Your task to perform on an android device: turn on airplane mode Image 0: 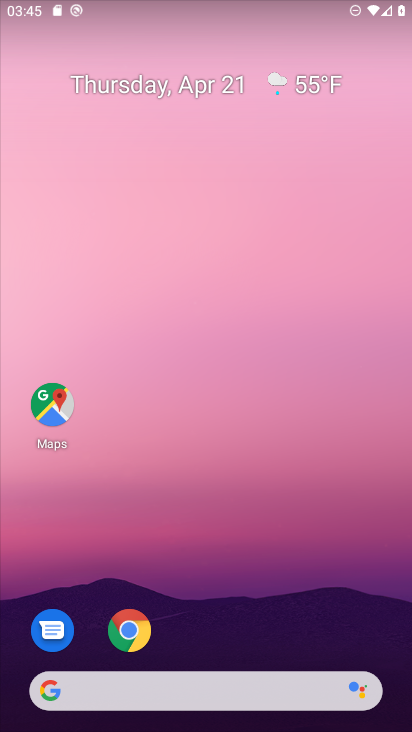
Step 0: drag from (207, 620) to (175, 353)
Your task to perform on an android device: turn on airplane mode Image 1: 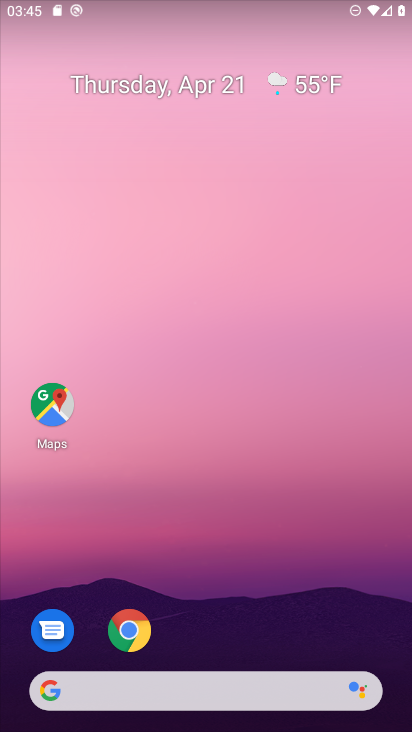
Step 1: drag from (244, 612) to (205, 199)
Your task to perform on an android device: turn on airplane mode Image 2: 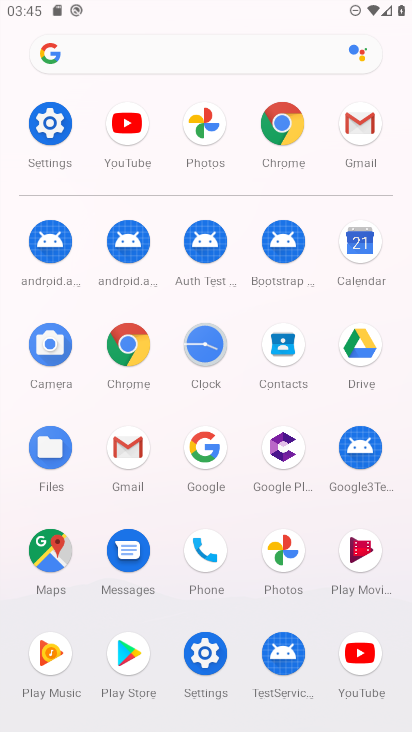
Step 2: click (43, 125)
Your task to perform on an android device: turn on airplane mode Image 3: 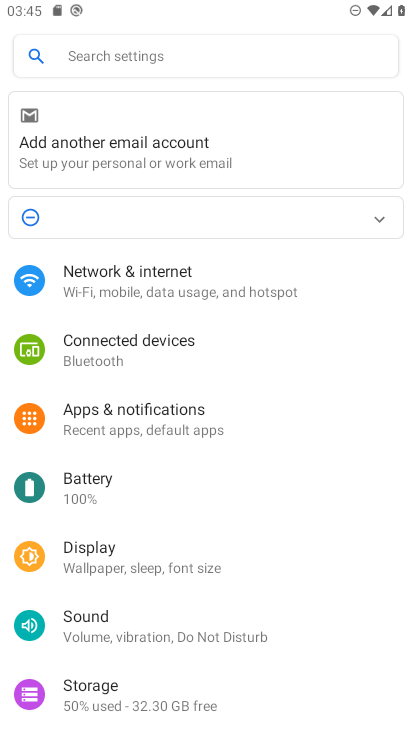
Step 3: click (150, 272)
Your task to perform on an android device: turn on airplane mode Image 4: 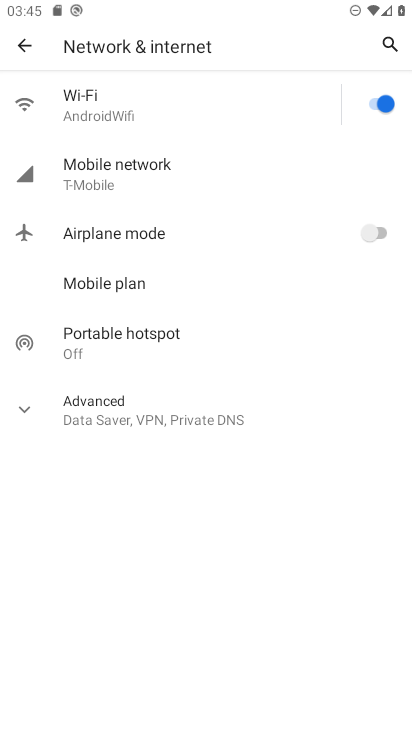
Step 4: click (371, 241)
Your task to perform on an android device: turn on airplane mode Image 5: 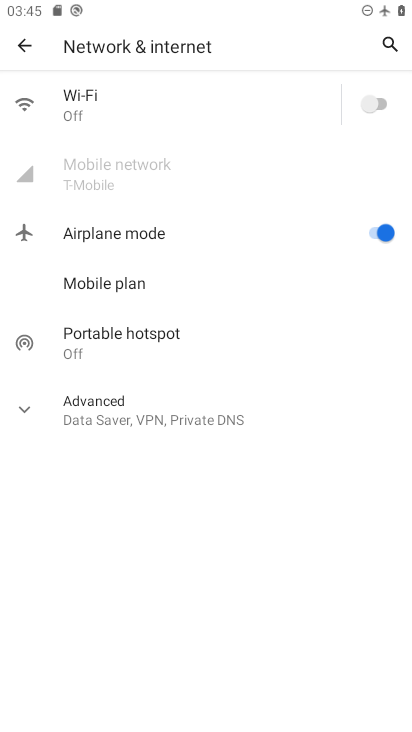
Step 5: task complete